Your task to perform on an android device: turn vacation reply on in the gmail app Image 0: 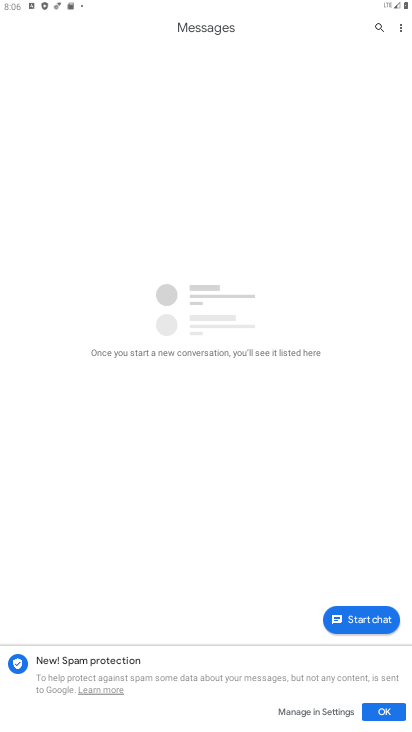
Step 0: press home button
Your task to perform on an android device: turn vacation reply on in the gmail app Image 1: 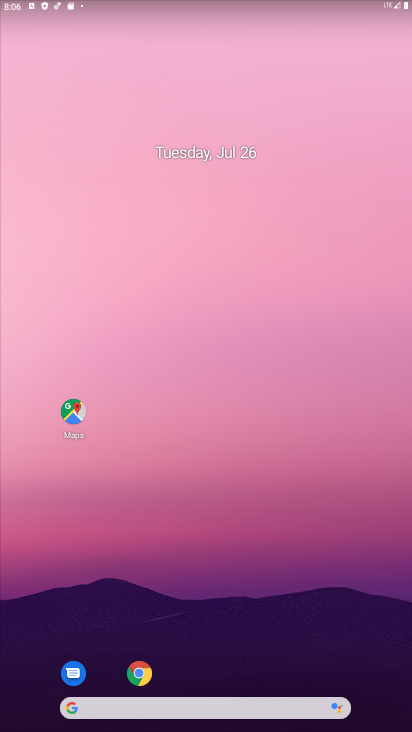
Step 1: drag from (182, 663) to (199, 110)
Your task to perform on an android device: turn vacation reply on in the gmail app Image 2: 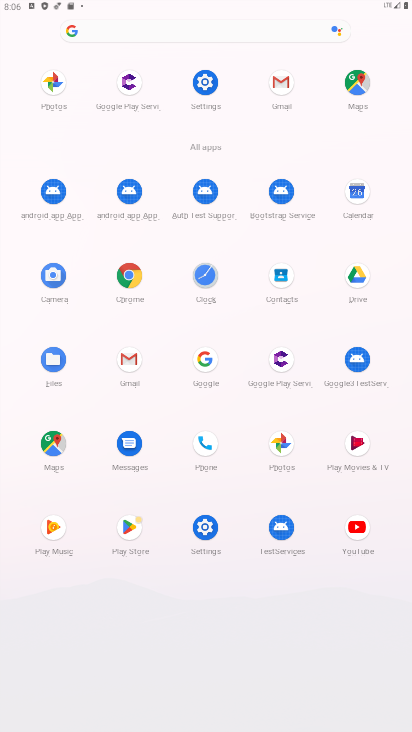
Step 2: click (130, 354)
Your task to perform on an android device: turn vacation reply on in the gmail app Image 3: 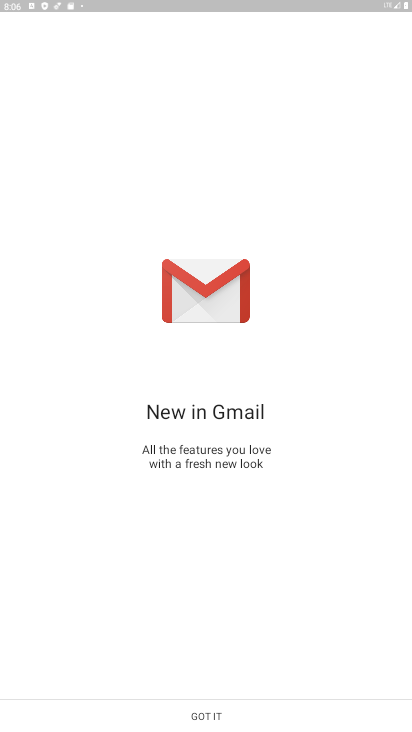
Step 3: click (237, 704)
Your task to perform on an android device: turn vacation reply on in the gmail app Image 4: 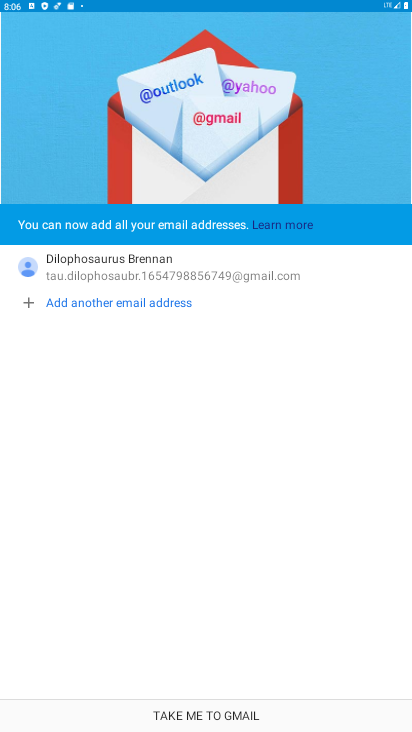
Step 4: click (237, 704)
Your task to perform on an android device: turn vacation reply on in the gmail app Image 5: 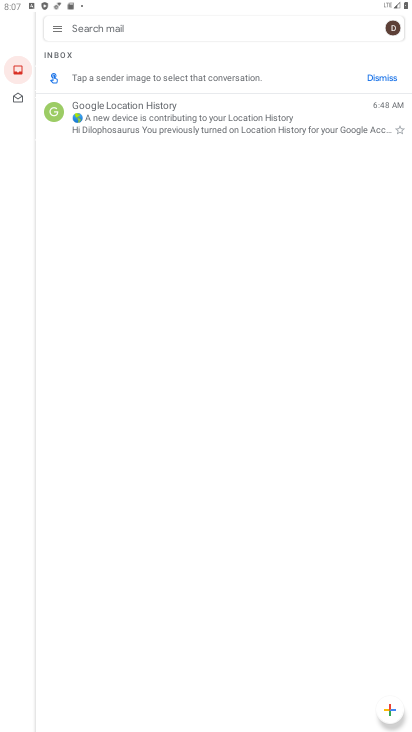
Step 5: click (51, 26)
Your task to perform on an android device: turn vacation reply on in the gmail app Image 6: 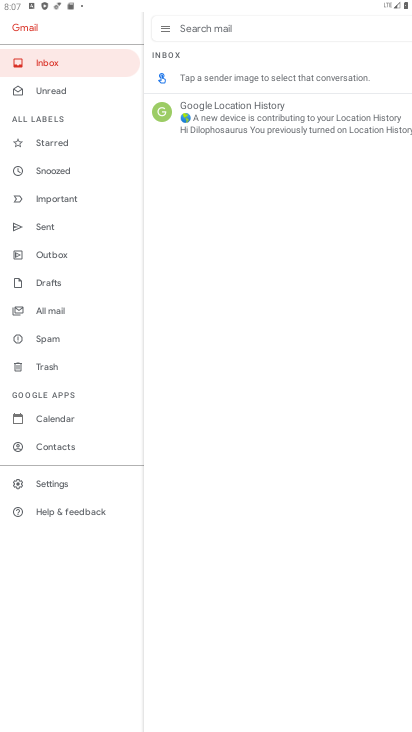
Step 6: click (67, 489)
Your task to perform on an android device: turn vacation reply on in the gmail app Image 7: 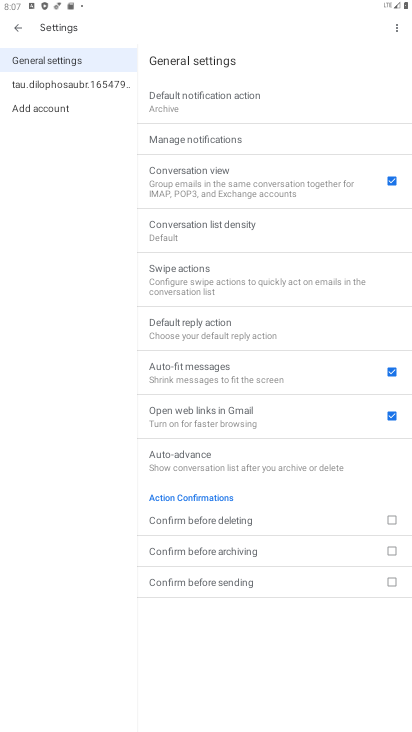
Step 7: click (33, 81)
Your task to perform on an android device: turn vacation reply on in the gmail app Image 8: 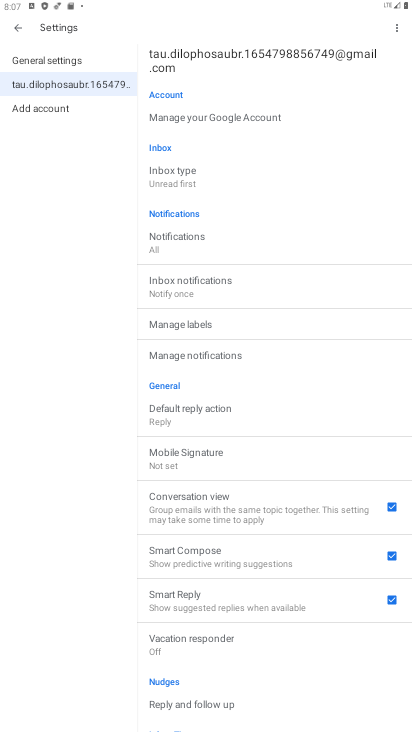
Step 8: click (250, 645)
Your task to perform on an android device: turn vacation reply on in the gmail app Image 9: 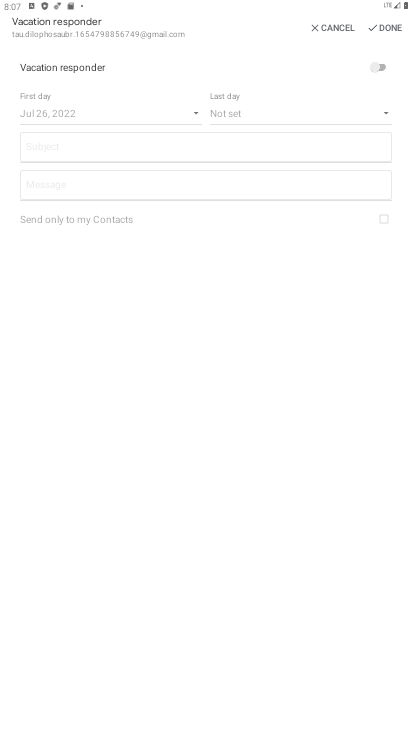
Step 9: click (385, 63)
Your task to perform on an android device: turn vacation reply on in the gmail app Image 10: 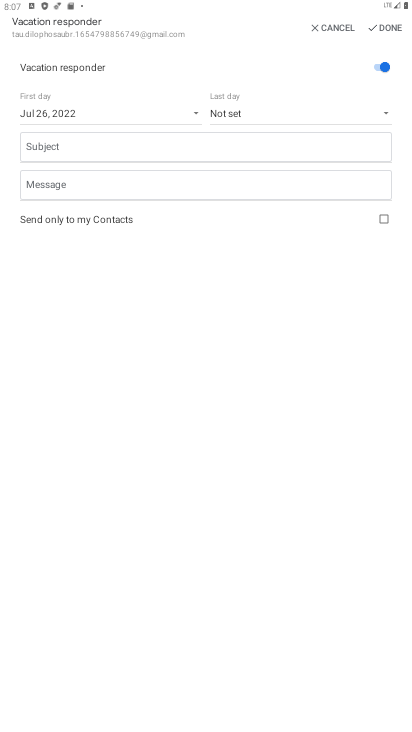
Step 10: task complete